Your task to perform on an android device: Add macbook pro 13 inch to the cart on costco Image 0: 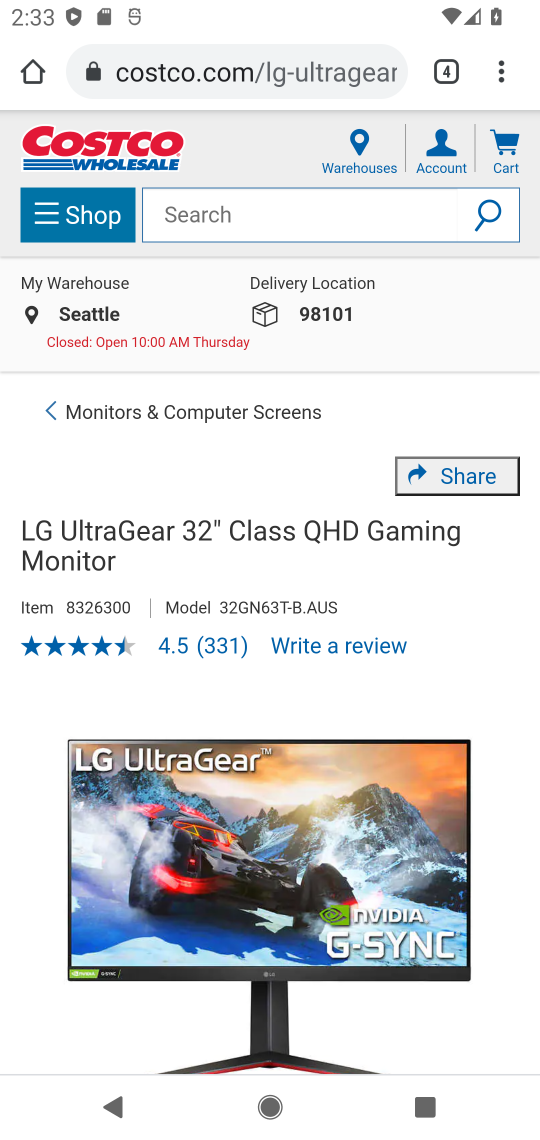
Step 0: task complete